Your task to perform on an android device: make emails show in primary in the gmail app Image 0: 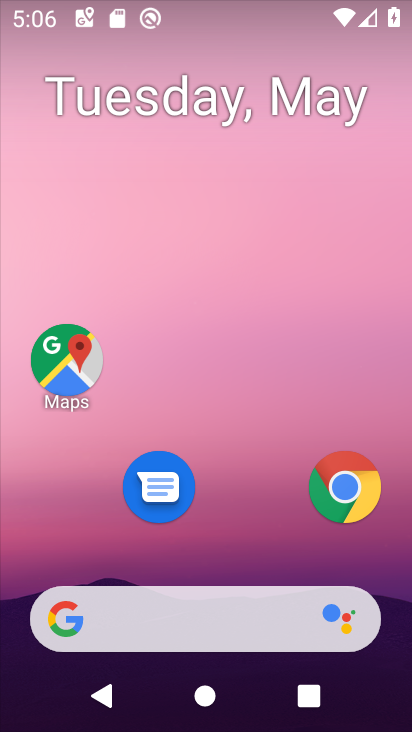
Step 0: drag from (246, 557) to (262, 3)
Your task to perform on an android device: make emails show in primary in the gmail app Image 1: 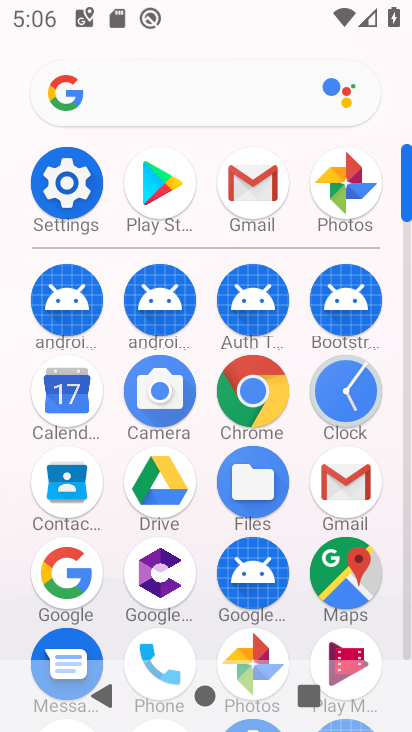
Step 1: click (245, 175)
Your task to perform on an android device: make emails show in primary in the gmail app Image 2: 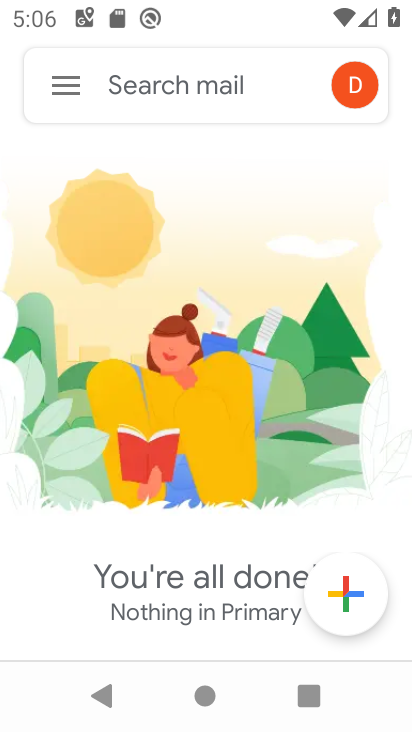
Step 2: click (71, 98)
Your task to perform on an android device: make emails show in primary in the gmail app Image 3: 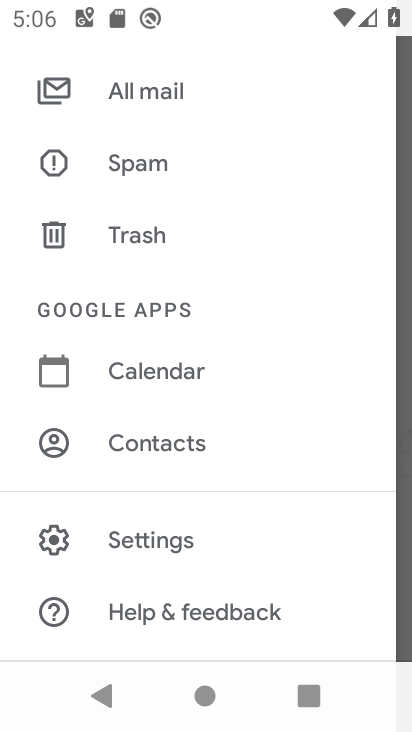
Step 3: click (147, 528)
Your task to perform on an android device: make emails show in primary in the gmail app Image 4: 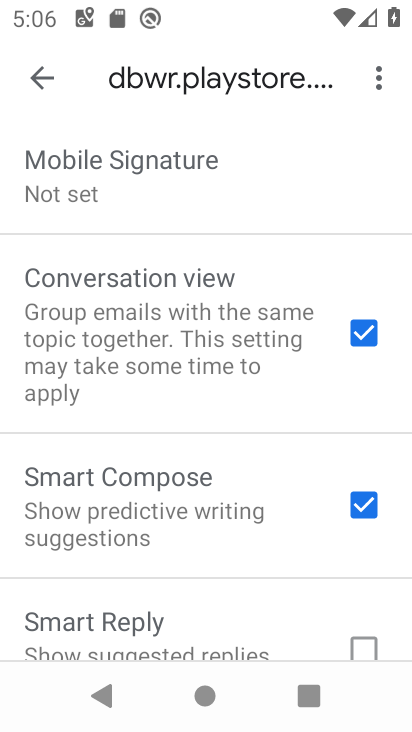
Step 4: task complete